Your task to perform on an android device: change the clock style Image 0: 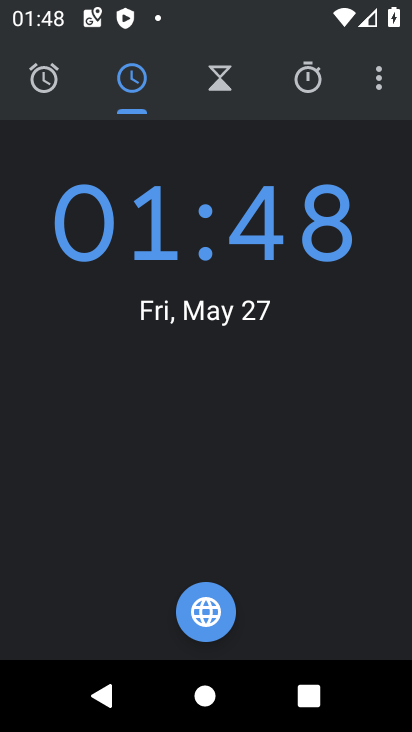
Step 0: press home button
Your task to perform on an android device: change the clock style Image 1: 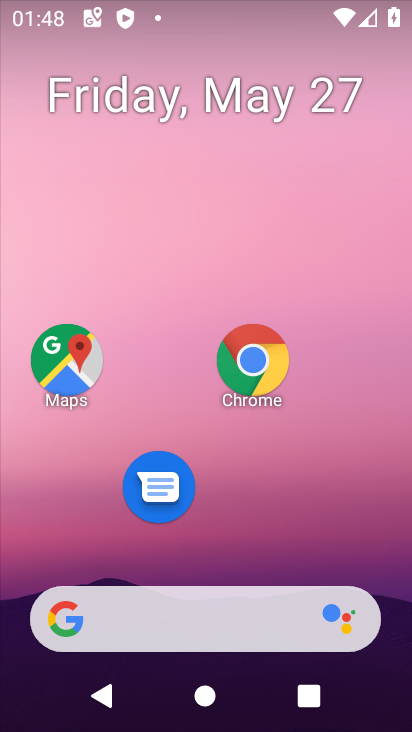
Step 1: drag from (244, 505) to (259, 99)
Your task to perform on an android device: change the clock style Image 2: 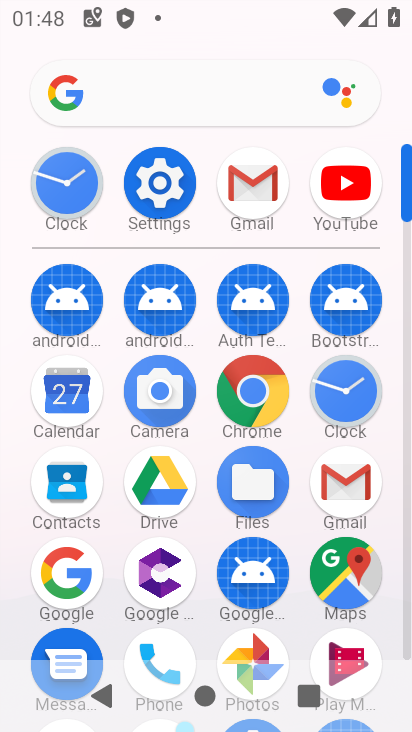
Step 2: click (338, 397)
Your task to perform on an android device: change the clock style Image 3: 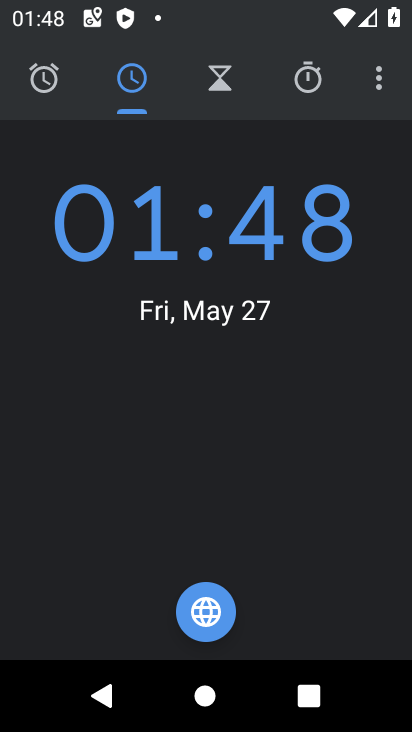
Step 3: click (365, 87)
Your task to perform on an android device: change the clock style Image 4: 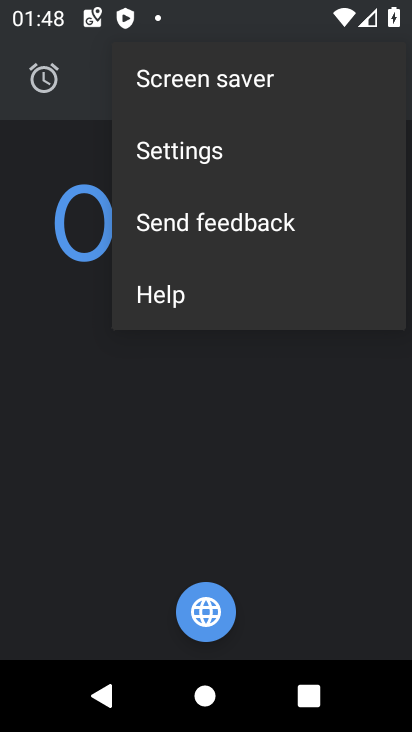
Step 4: click (238, 135)
Your task to perform on an android device: change the clock style Image 5: 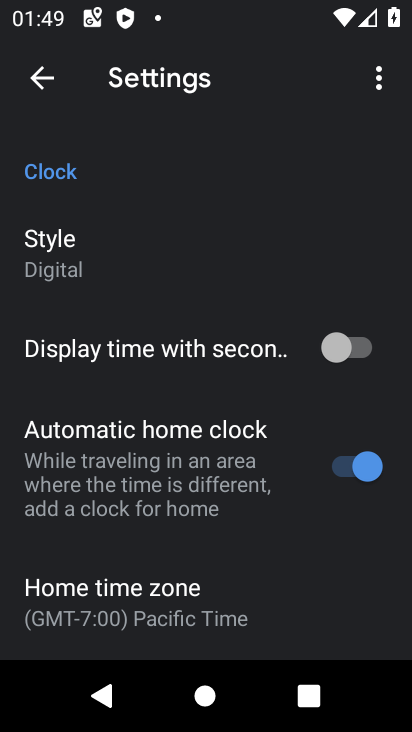
Step 5: task complete